Your task to perform on an android device: Open the calendar app, open the side menu, and click the "Day" option Image 0: 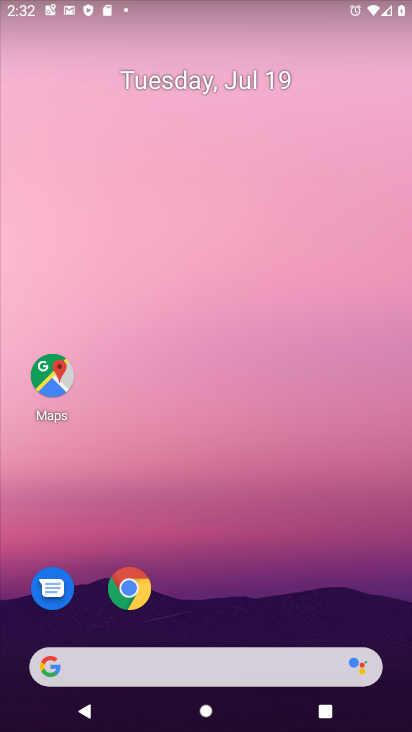
Step 0: drag from (388, 615) to (215, 79)
Your task to perform on an android device: Open the calendar app, open the side menu, and click the "Day" option Image 1: 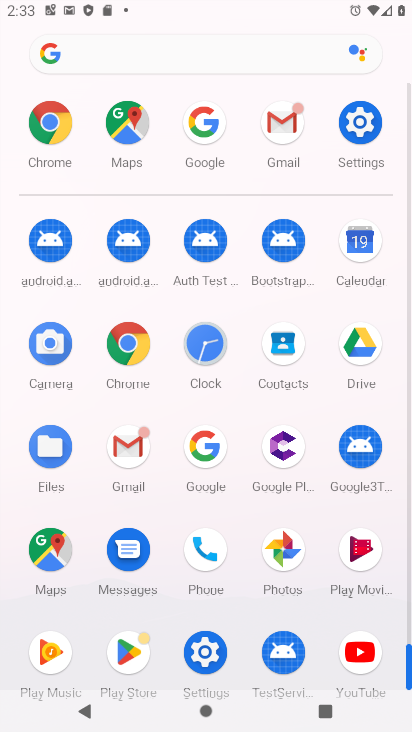
Step 1: click (363, 230)
Your task to perform on an android device: Open the calendar app, open the side menu, and click the "Day" option Image 2: 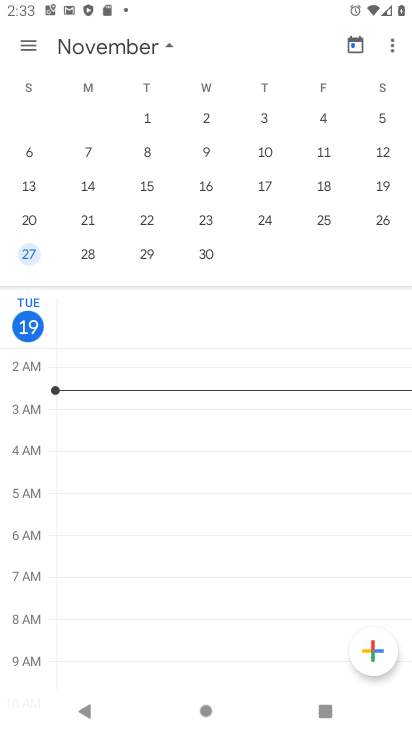
Step 2: click (21, 51)
Your task to perform on an android device: Open the calendar app, open the side menu, and click the "Day" option Image 3: 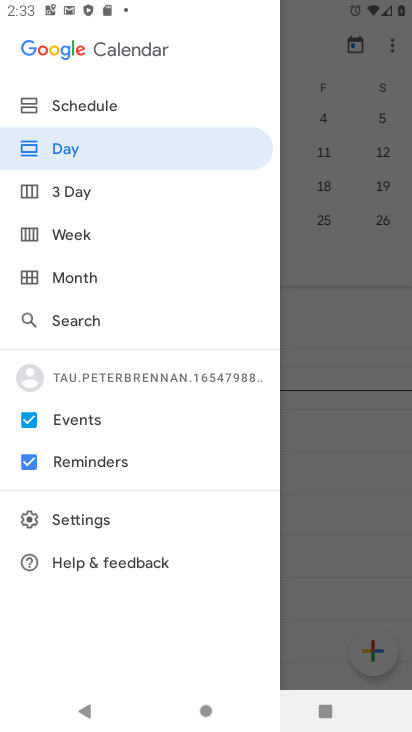
Step 3: click (154, 160)
Your task to perform on an android device: Open the calendar app, open the side menu, and click the "Day" option Image 4: 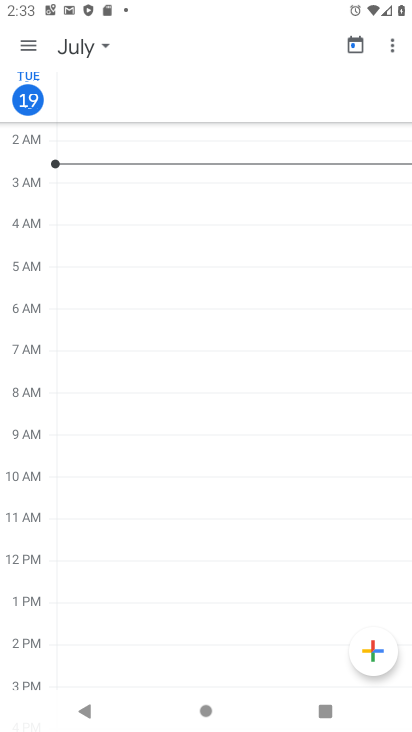
Step 4: task complete